Your task to perform on an android device: change notification settings in the gmail app Image 0: 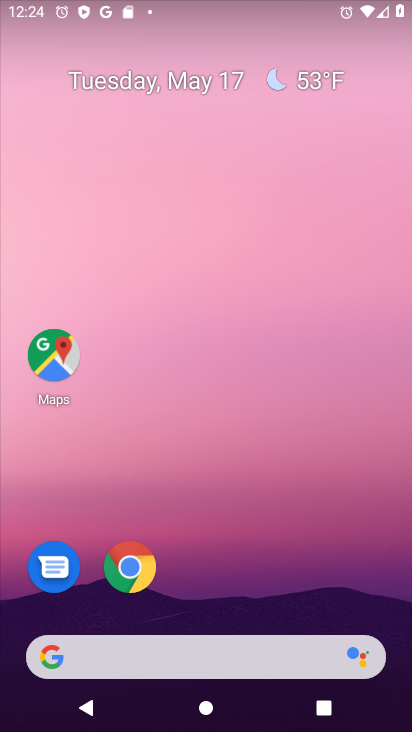
Step 0: drag from (304, 589) to (333, 146)
Your task to perform on an android device: change notification settings in the gmail app Image 1: 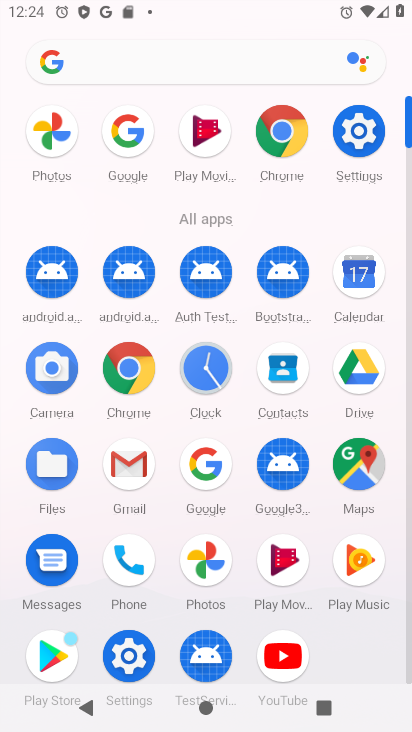
Step 1: click (127, 461)
Your task to perform on an android device: change notification settings in the gmail app Image 2: 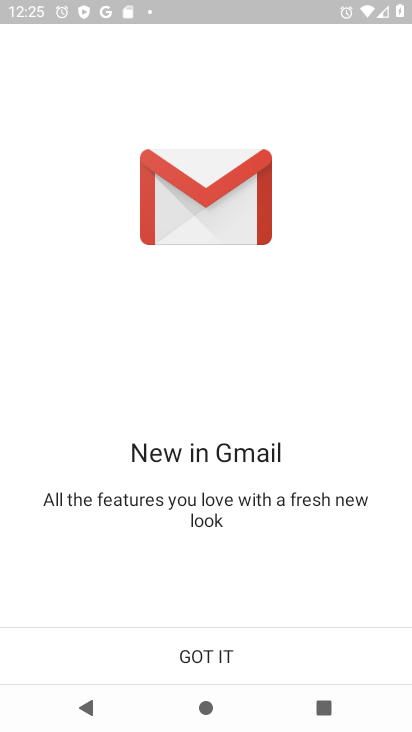
Step 2: click (251, 660)
Your task to perform on an android device: change notification settings in the gmail app Image 3: 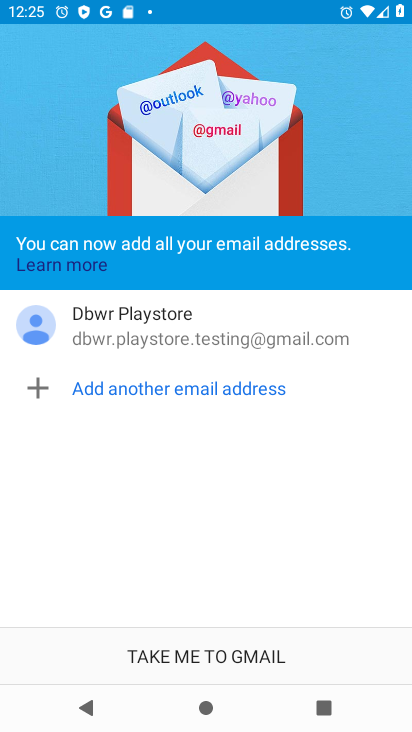
Step 3: click (251, 660)
Your task to perform on an android device: change notification settings in the gmail app Image 4: 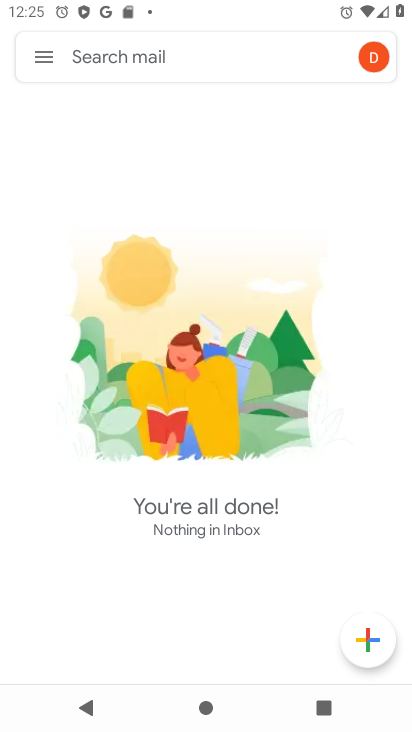
Step 4: click (47, 63)
Your task to perform on an android device: change notification settings in the gmail app Image 5: 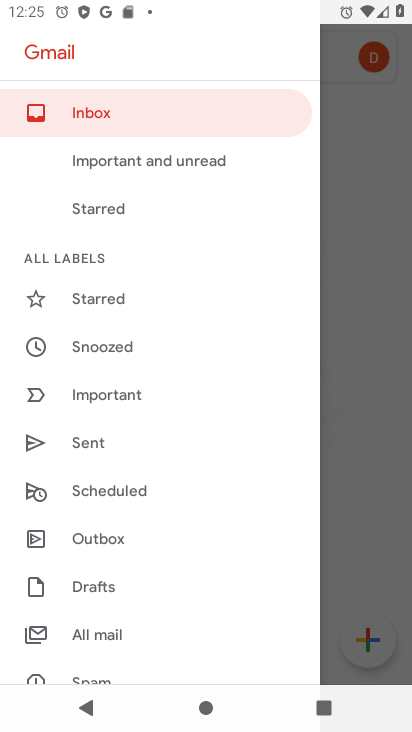
Step 5: drag from (189, 543) to (214, 413)
Your task to perform on an android device: change notification settings in the gmail app Image 6: 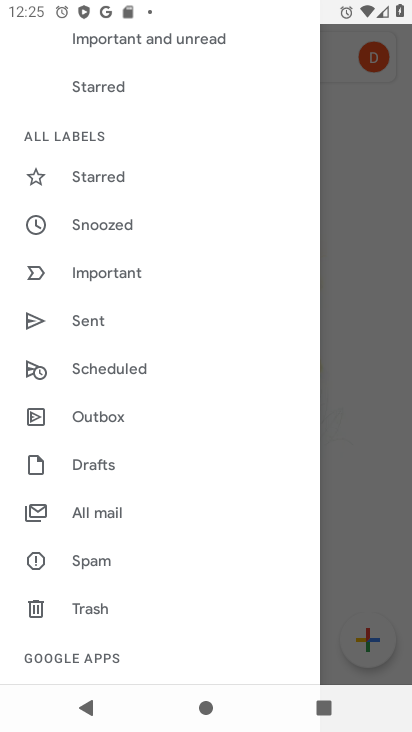
Step 6: drag from (225, 563) to (248, 397)
Your task to perform on an android device: change notification settings in the gmail app Image 7: 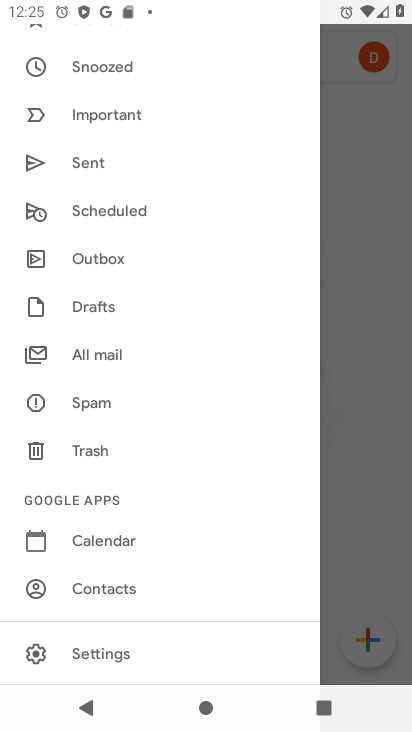
Step 7: drag from (208, 578) to (222, 406)
Your task to perform on an android device: change notification settings in the gmail app Image 8: 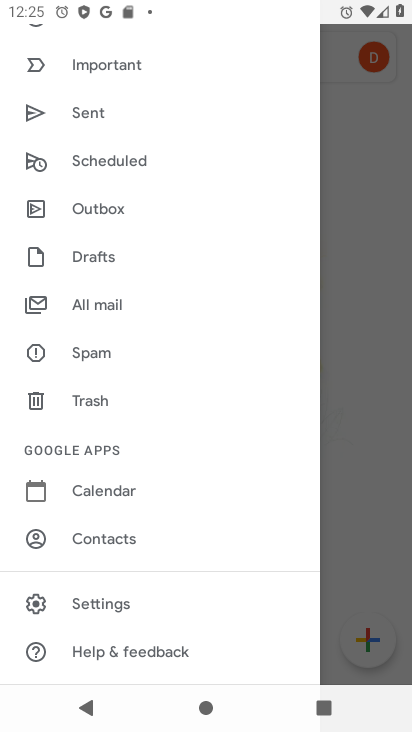
Step 8: click (108, 610)
Your task to perform on an android device: change notification settings in the gmail app Image 9: 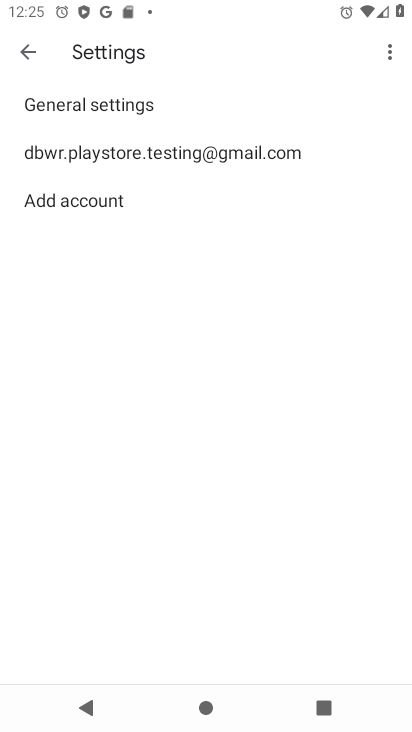
Step 9: click (232, 134)
Your task to perform on an android device: change notification settings in the gmail app Image 10: 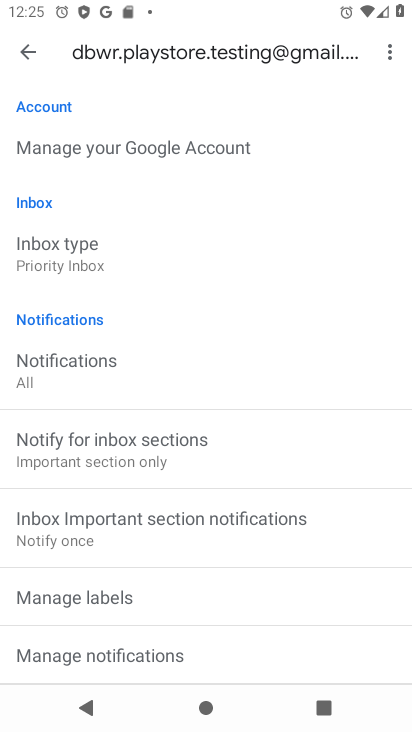
Step 10: drag from (320, 528) to (311, 340)
Your task to perform on an android device: change notification settings in the gmail app Image 11: 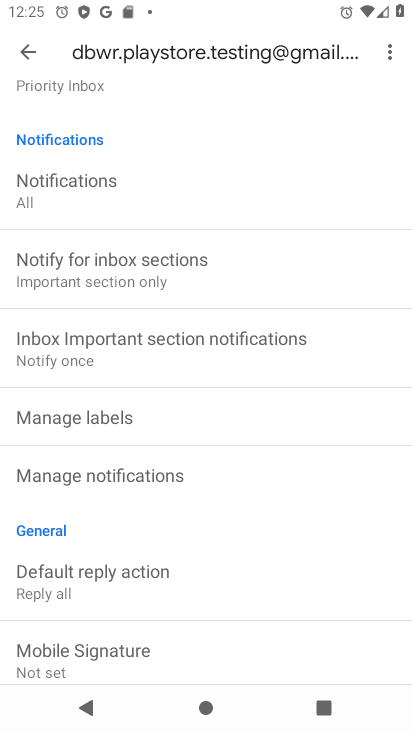
Step 11: drag from (276, 593) to (278, 447)
Your task to perform on an android device: change notification settings in the gmail app Image 12: 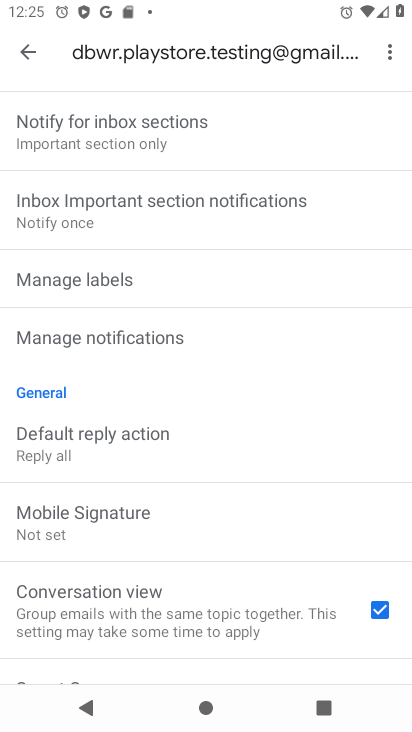
Step 12: click (155, 342)
Your task to perform on an android device: change notification settings in the gmail app Image 13: 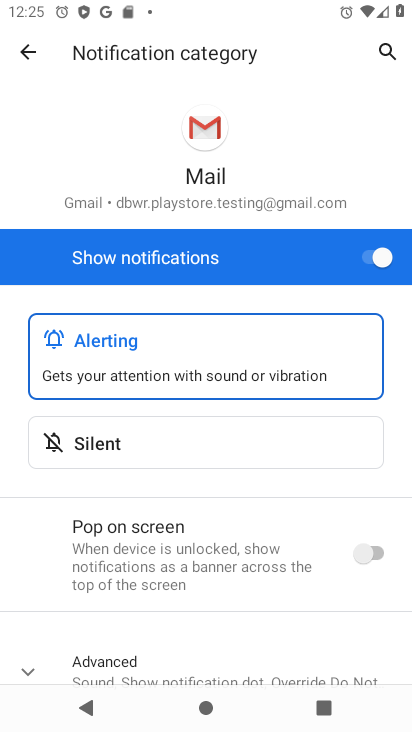
Step 13: click (379, 267)
Your task to perform on an android device: change notification settings in the gmail app Image 14: 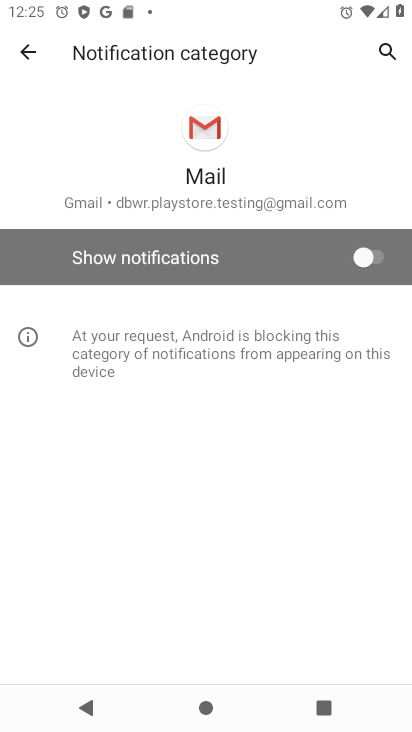
Step 14: task complete